Your task to perform on an android device: delete a single message in the gmail app Image 0: 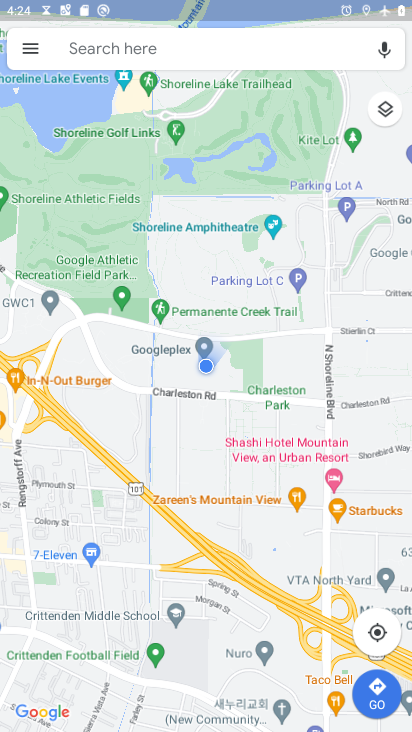
Step 0: press back button
Your task to perform on an android device: delete a single message in the gmail app Image 1: 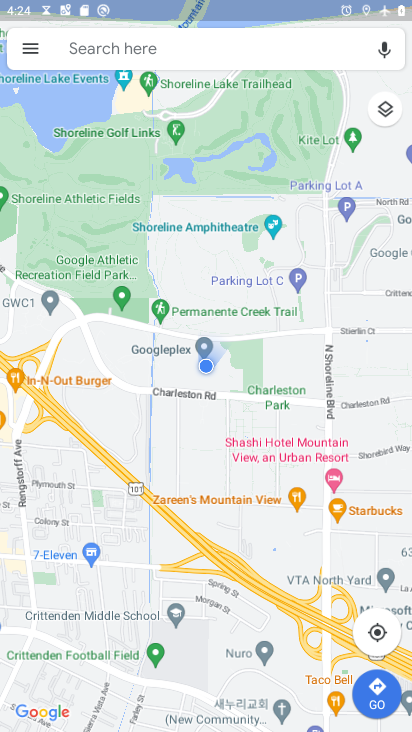
Step 1: press back button
Your task to perform on an android device: delete a single message in the gmail app Image 2: 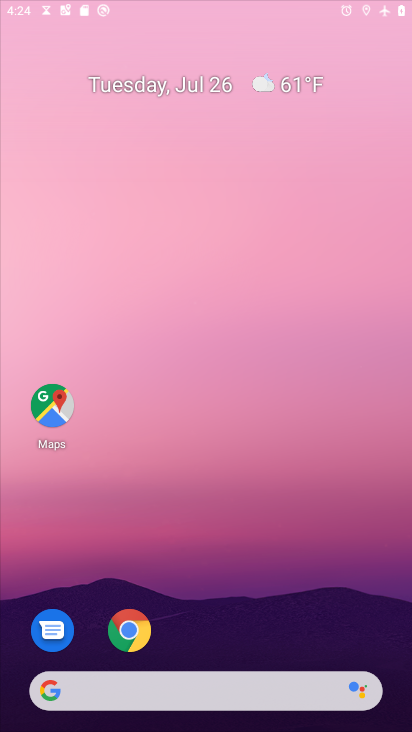
Step 2: press back button
Your task to perform on an android device: delete a single message in the gmail app Image 3: 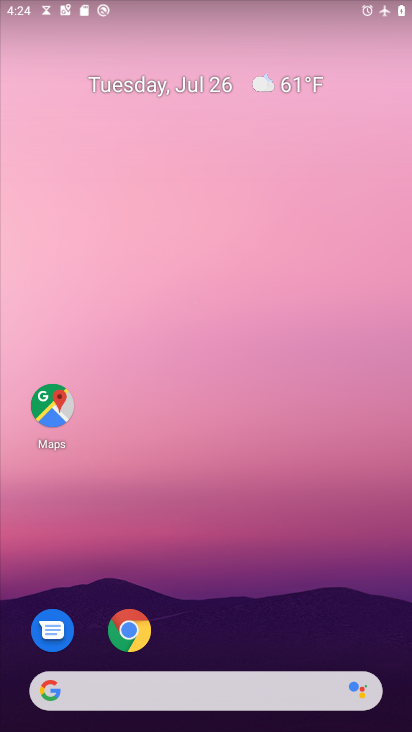
Step 3: drag from (279, 571) to (227, 58)
Your task to perform on an android device: delete a single message in the gmail app Image 4: 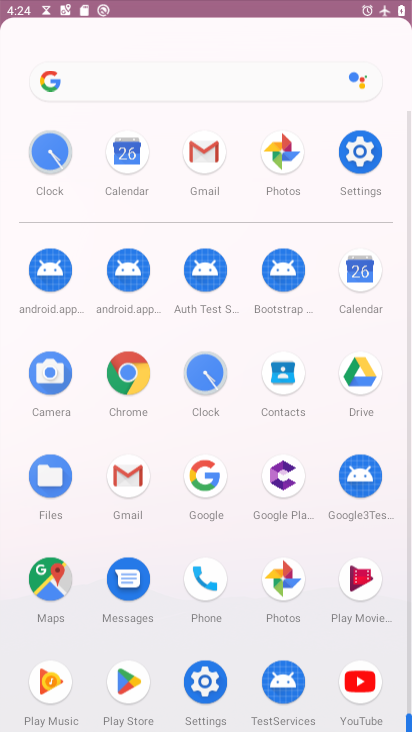
Step 4: drag from (221, 284) to (199, 2)
Your task to perform on an android device: delete a single message in the gmail app Image 5: 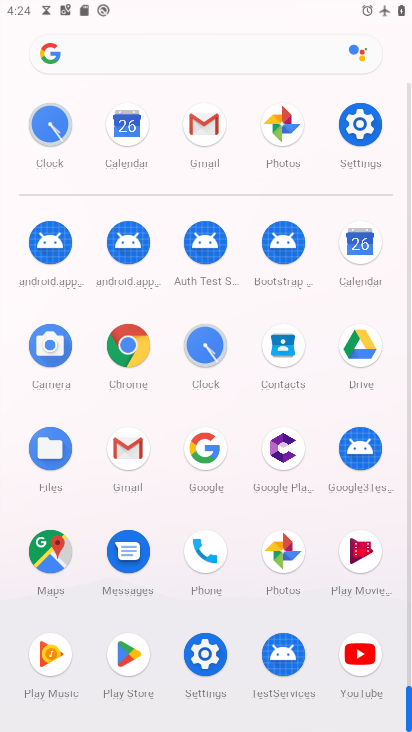
Step 5: click (129, 436)
Your task to perform on an android device: delete a single message in the gmail app Image 6: 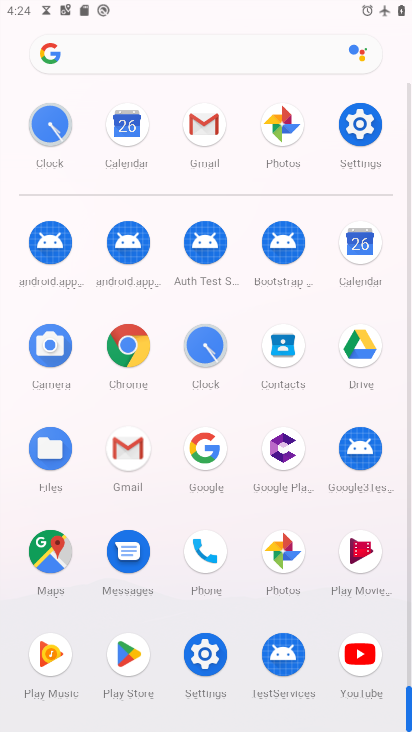
Step 6: click (125, 442)
Your task to perform on an android device: delete a single message in the gmail app Image 7: 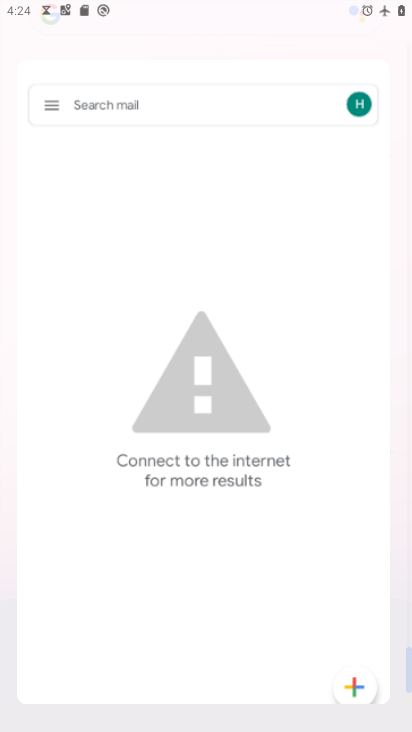
Step 7: click (126, 446)
Your task to perform on an android device: delete a single message in the gmail app Image 8: 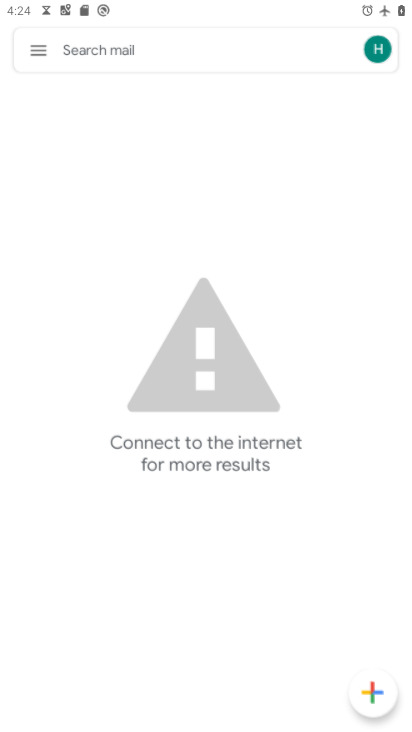
Step 8: click (127, 446)
Your task to perform on an android device: delete a single message in the gmail app Image 9: 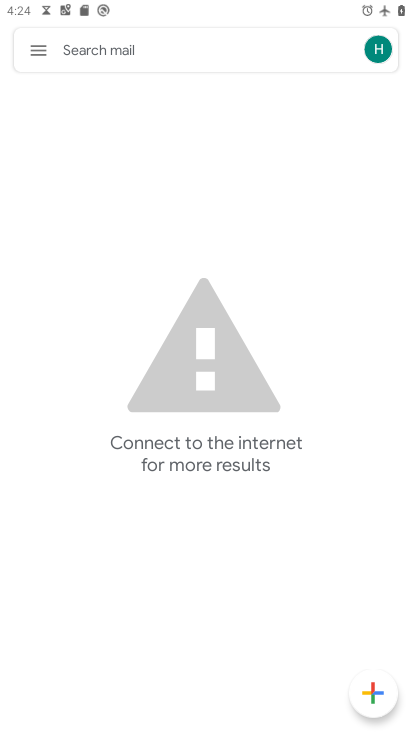
Step 9: click (131, 442)
Your task to perform on an android device: delete a single message in the gmail app Image 10: 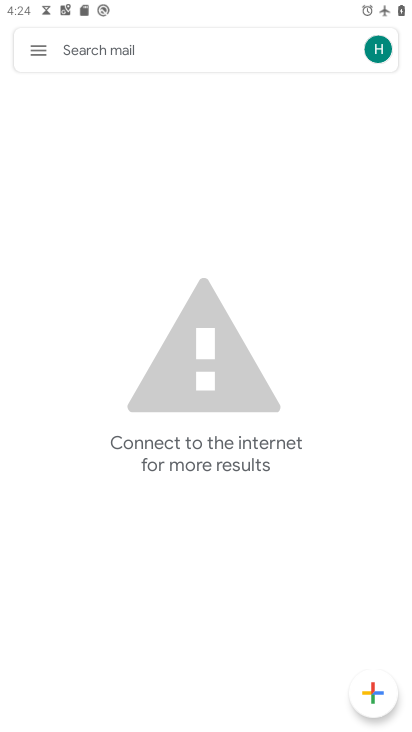
Step 10: click (38, 38)
Your task to perform on an android device: delete a single message in the gmail app Image 11: 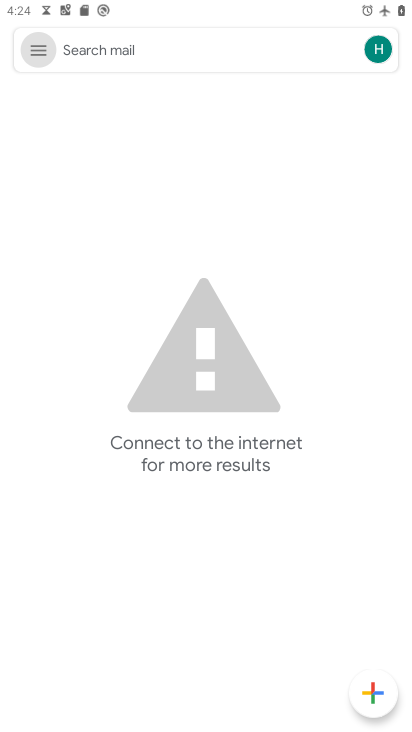
Step 11: click (38, 42)
Your task to perform on an android device: delete a single message in the gmail app Image 12: 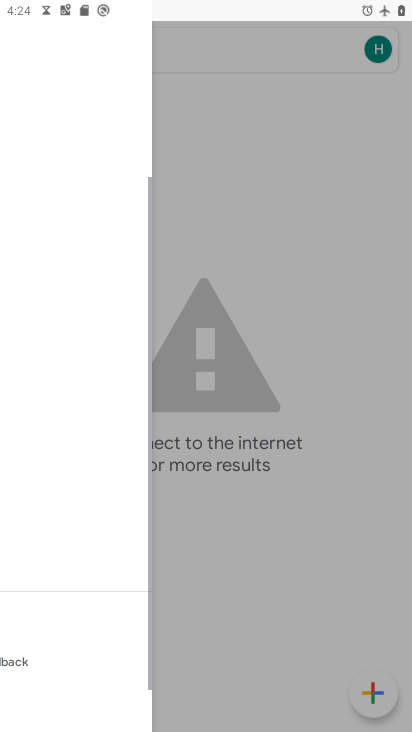
Step 12: click (39, 45)
Your task to perform on an android device: delete a single message in the gmail app Image 13: 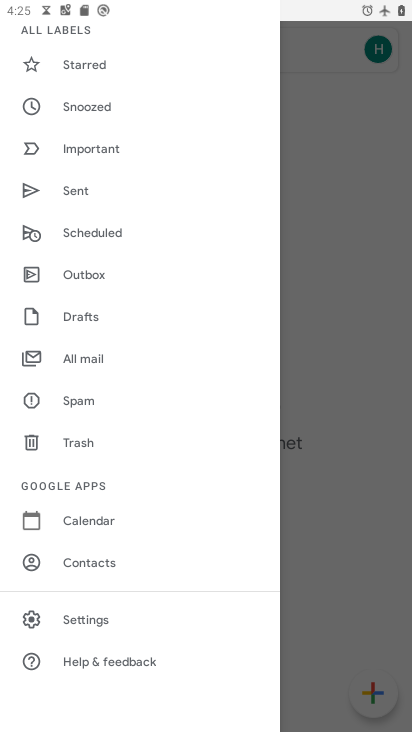
Step 13: click (73, 353)
Your task to perform on an android device: delete a single message in the gmail app Image 14: 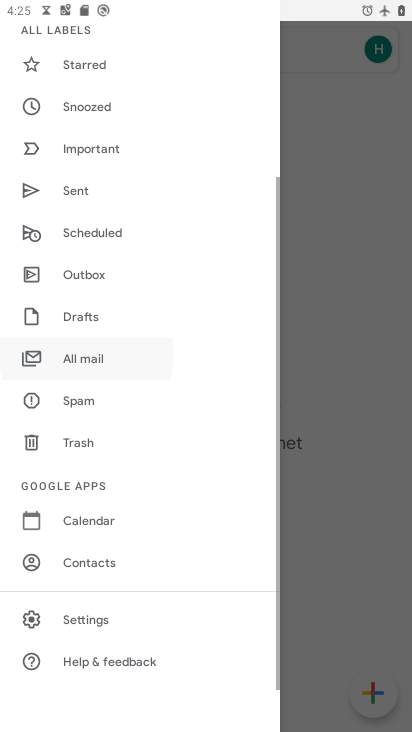
Step 14: click (73, 353)
Your task to perform on an android device: delete a single message in the gmail app Image 15: 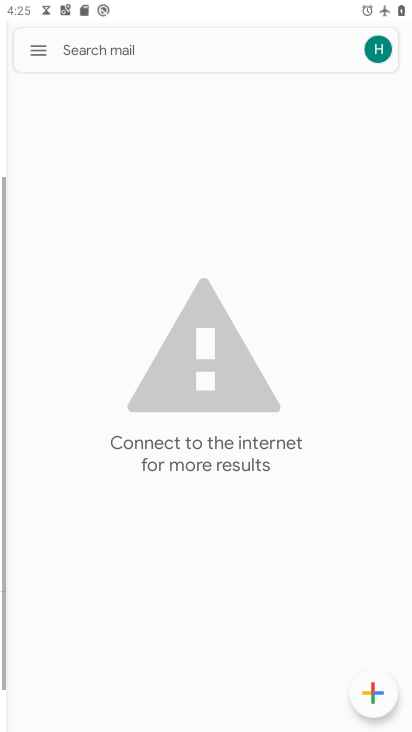
Step 15: click (79, 352)
Your task to perform on an android device: delete a single message in the gmail app Image 16: 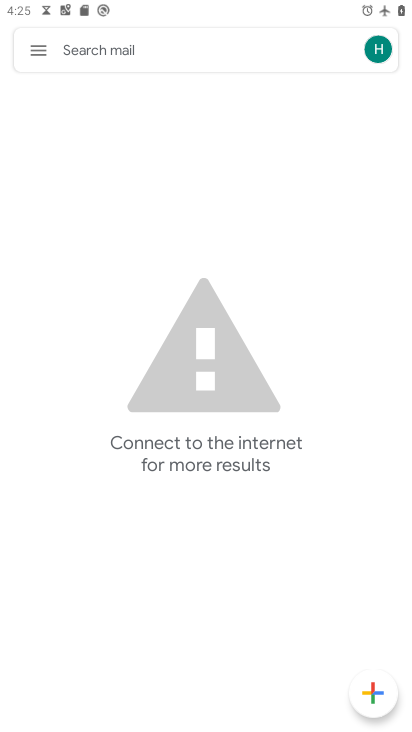
Step 16: click (89, 356)
Your task to perform on an android device: delete a single message in the gmail app Image 17: 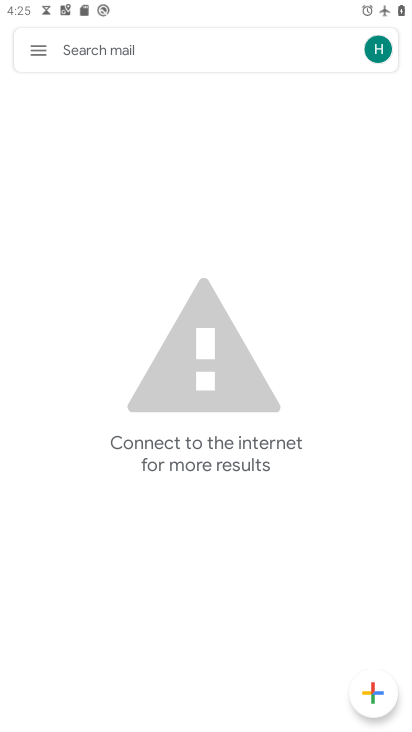
Step 17: task complete